Your task to perform on an android device: Show me popular games on the Play Store Image 0: 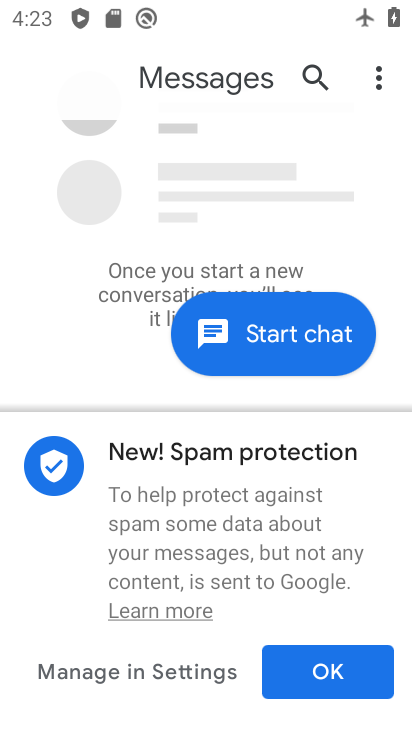
Step 0: press back button
Your task to perform on an android device: Show me popular games on the Play Store Image 1: 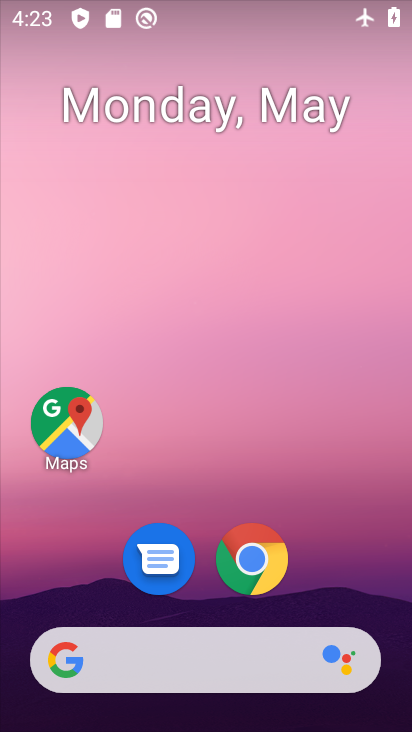
Step 1: drag from (318, 511) to (239, 19)
Your task to perform on an android device: Show me popular games on the Play Store Image 2: 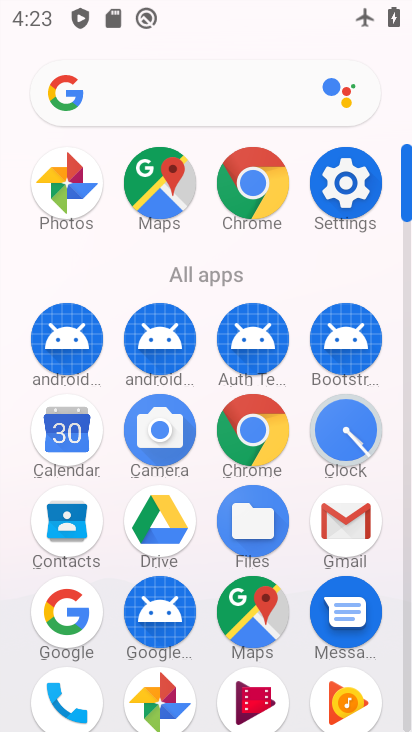
Step 2: drag from (20, 490) to (26, 168)
Your task to perform on an android device: Show me popular games on the Play Store Image 3: 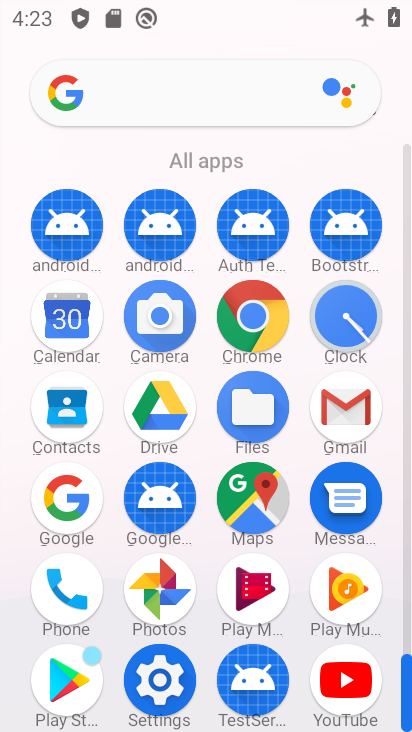
Step 3: click (67, 676)
Your task to perform on an android device: Show me popular games on the Play Store Image 4: 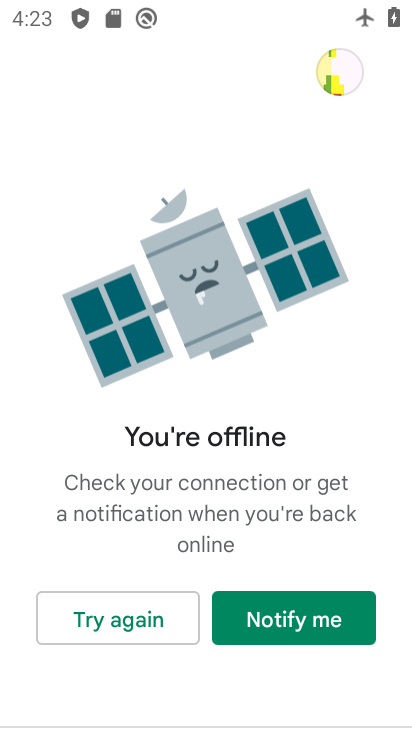
Step 4: click (132, 620)
Your task to perform on an android device: Show me popular games on the Play Store Image 5: 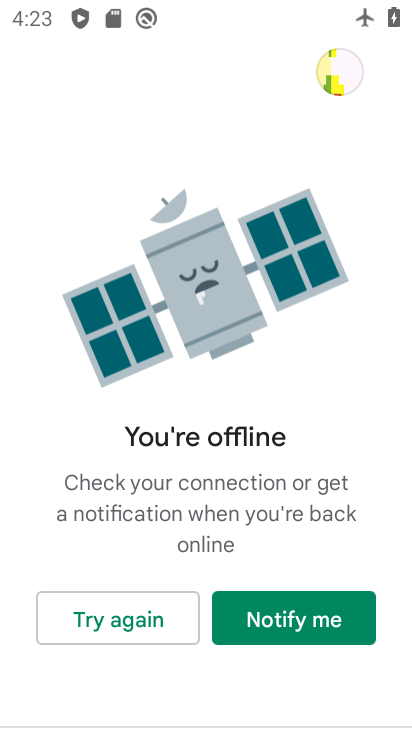
Step 5: task complete